Your task to perform on an android device: Go to eBay Image 0: 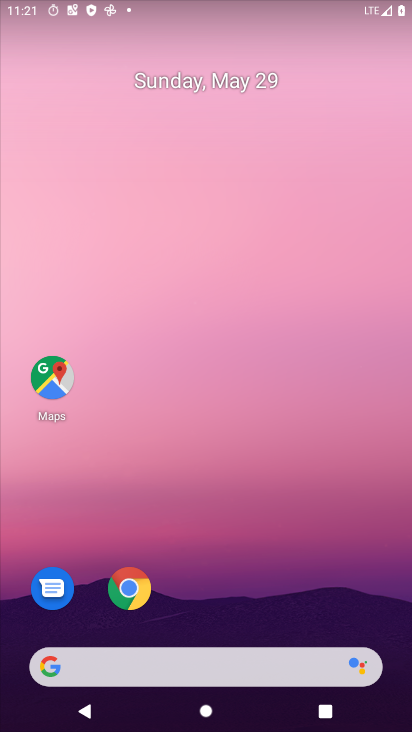
Step 0: drag from (214, 641) to (213, 192)
Your task to perform on an android device: Go to eBay Image 1: 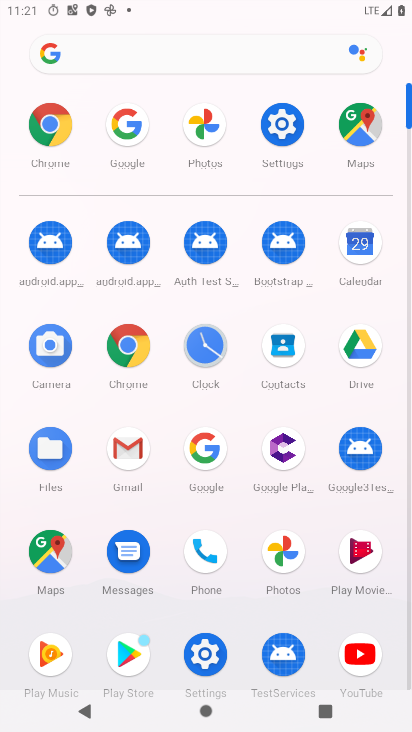
Step 1: click (125, 355)
Your task to perform on an android device: Go to eBay Image 2: 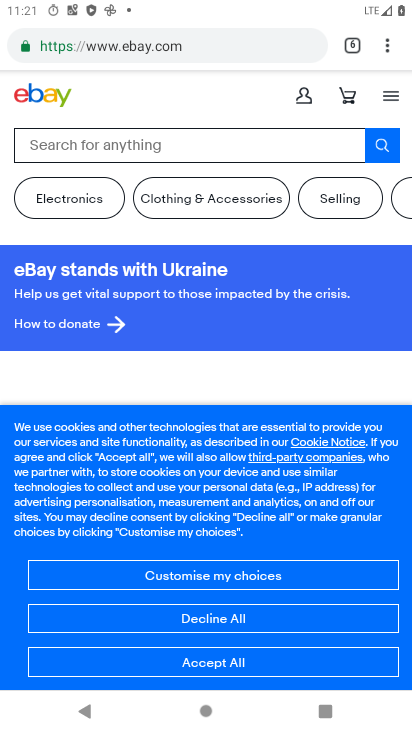
Step 2: task complete